Your task to perform on an android device: Open privacy settings Image 0: 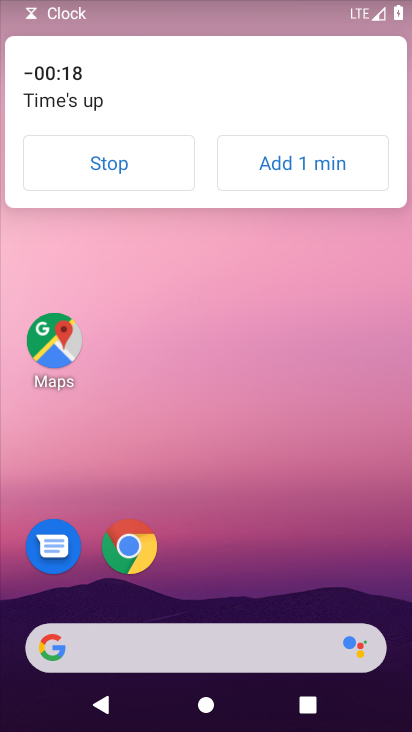
Step 0: click (156, 173)
Your task to perform on an android device: Open privacy settings Image 1: 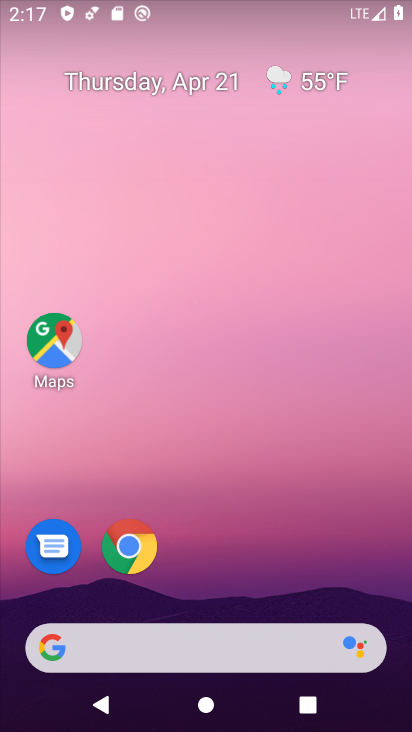
Step 1: drag from (299, 605) to (270, 168)
Your task to perform on an android device: Open privacy settings Image 2: 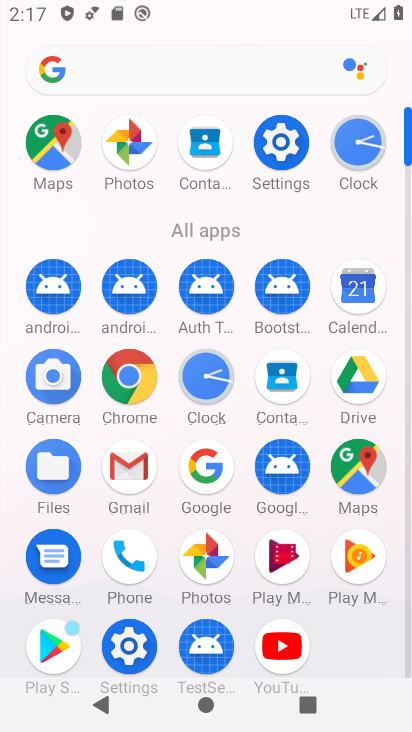
Step 2: click (275, 124)
Your task to perform on an android device: Open privacy settings Image 3: 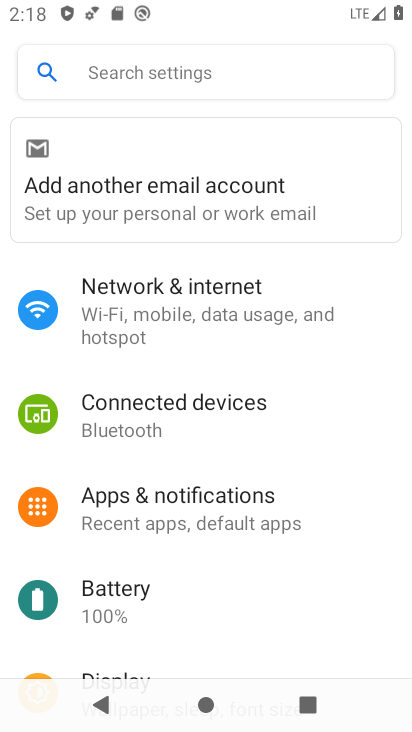
Step 3: drag from (132, 496) to (146, 264)
Your task to perform on an android device: Open privacy settings Image 4: 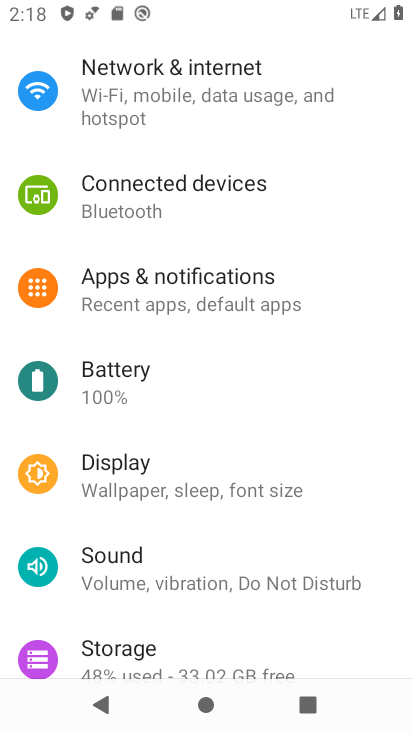
Step 4: drag from (115, 631) to (176, 143)
Your task to perform on an android device: Open privacy settings Image 5: 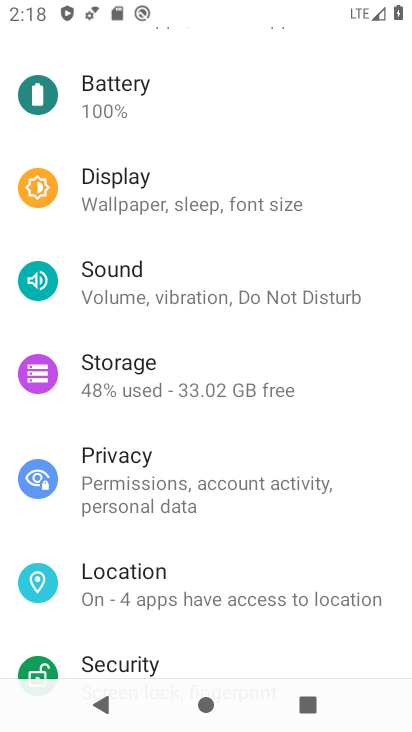
Step 5: click (158, 495)
Your task to perform on an android device: Open privacy settings Image 6: 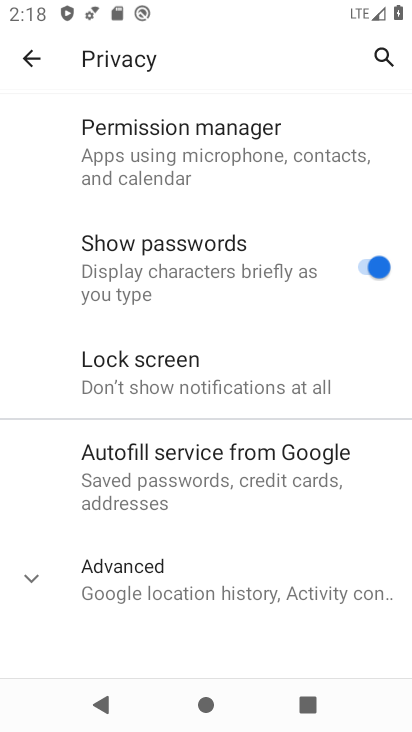
Step 6: task complete